Your task to perform on an android device: What's the weather? Image 0: 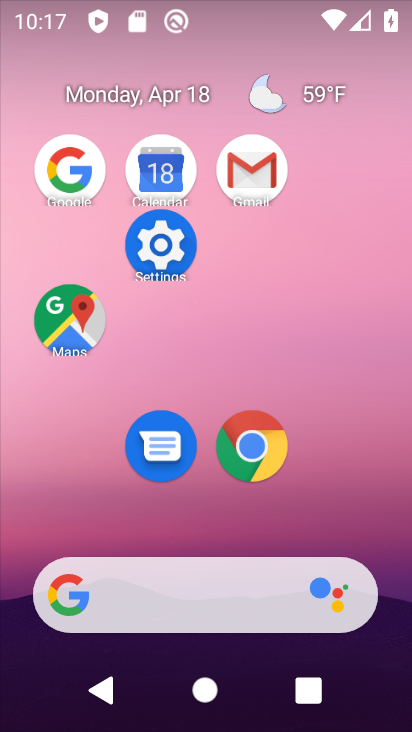
Step 0: click (69, 166)
Your task to perform on an android device: What's the weather? Image 1: 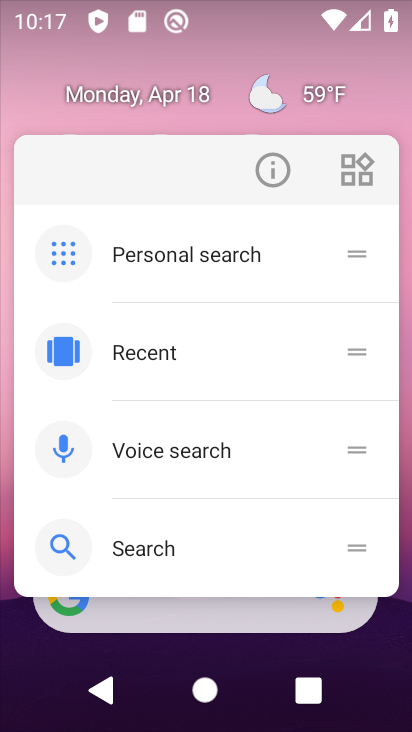
Step 1: click (49, 76)
Your task to perform on an android device: What's the weather? Image 2: 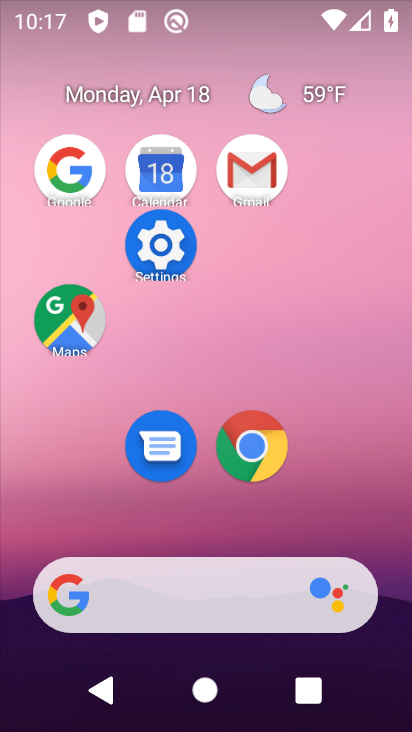
Step 2: click (35, 169)
Your task to perform on an android device: What's the weather? Image 3: 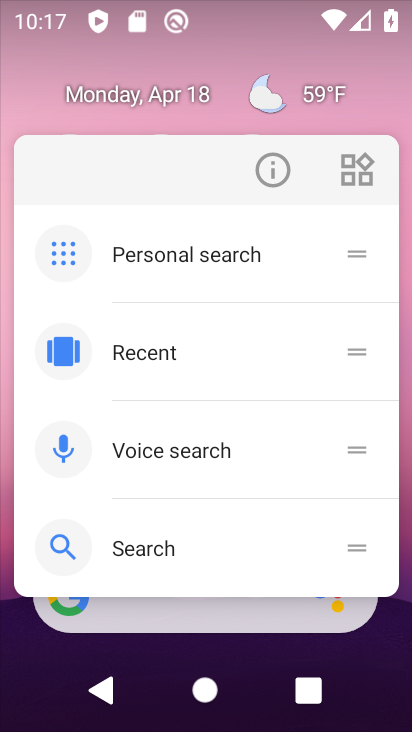
Step 3: click (13, 43)
Your task to perform on an android device: What's the weather? Image 4: 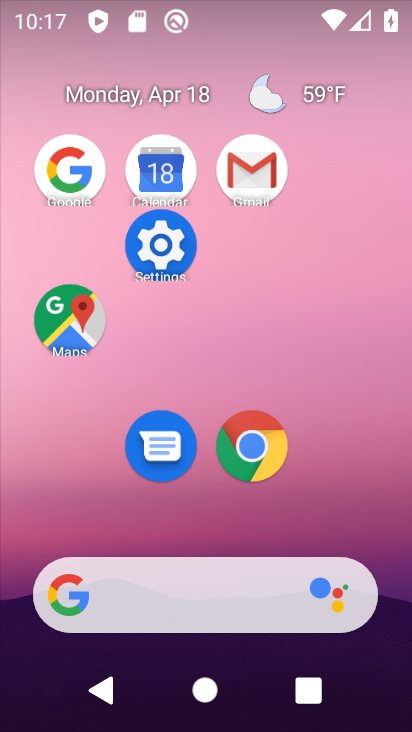
Step 4: click (64, 156)
Your task to perform on an android device: What's the weather? Image 5: 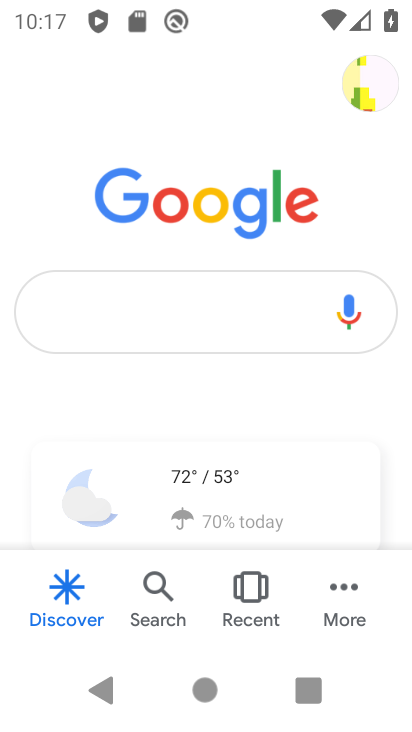
Step 5: click (141, 318)
Your task to perform on an android device: What's the weather? Image 6: 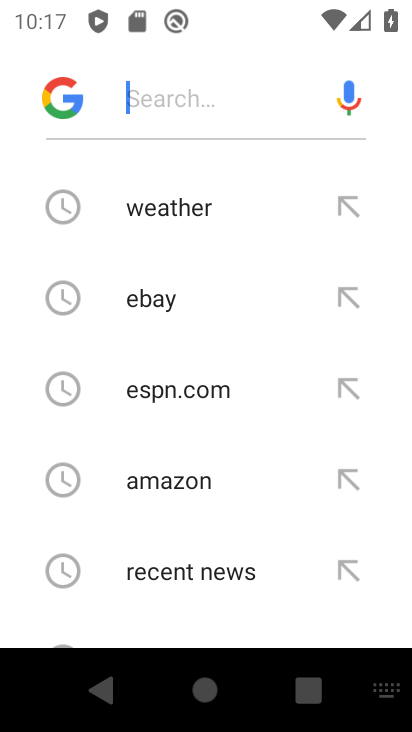
Step 6: drag from (205, 518) to (192, 466)
Your task to perform on an android device: What's the weather? Image 7: 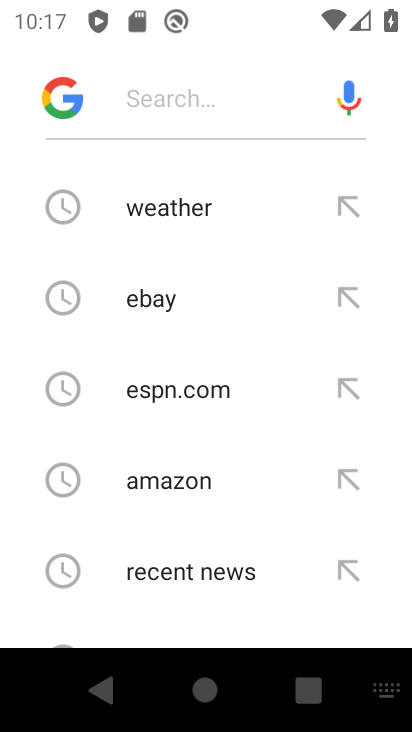
Step 7: click (149, 204)
Your task to perform on an android device: What's the weather? Image 8: 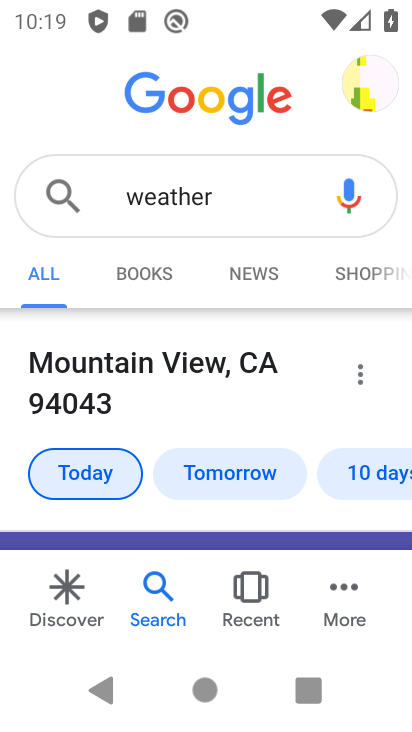
Step 8: task complete